Your task to perform on an android device: Go to Reddit.com Image 0: 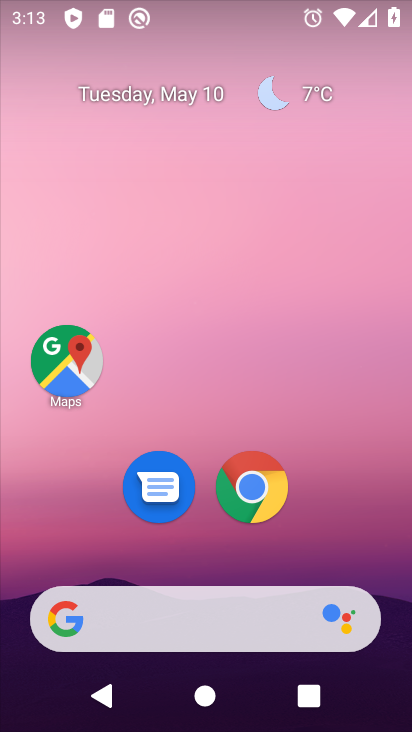
Step 0: click (253, 492)
Your task to perform on an android device: Go to Reddit.com Image 1: 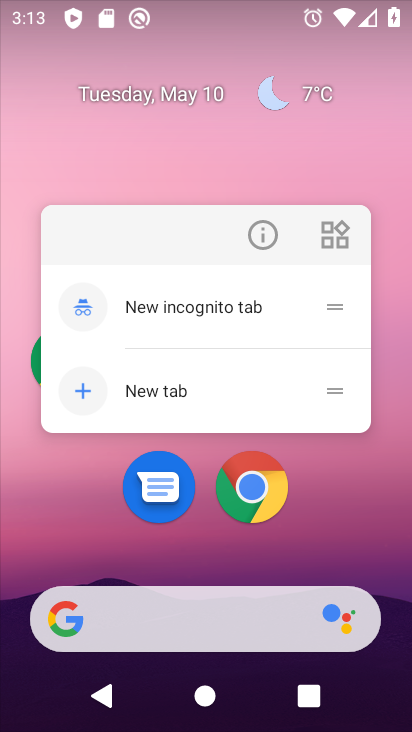
Step 1: click (253, 490)
Your task to perform on an android device: Go to Reddit.com Image 2: 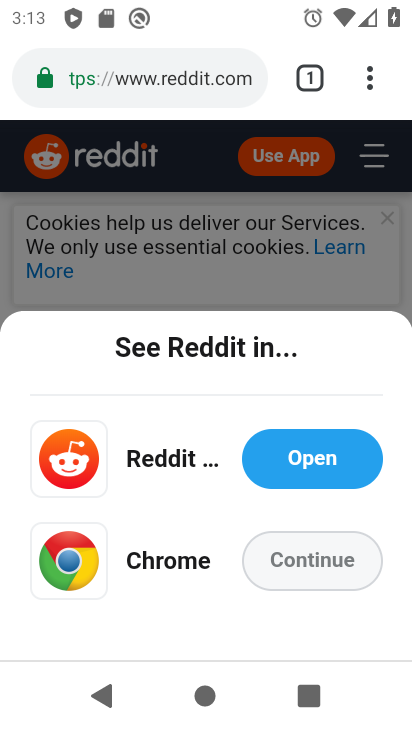
Step 2: task complete